Your task to perform on an android device: add a contact in the contacts app Image 0: 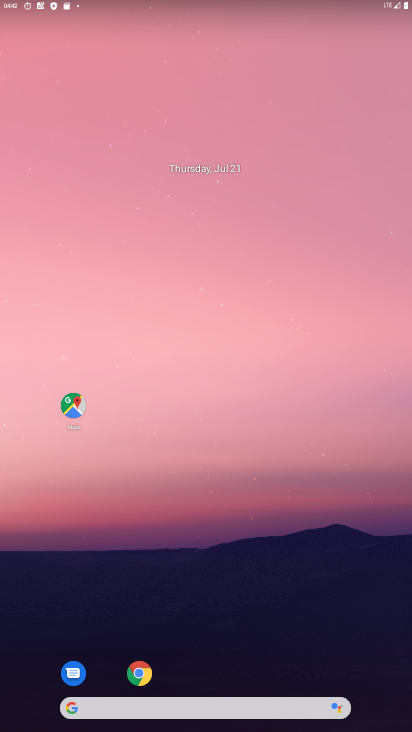
Step 0: drag from (299, 683) to (258, 180)
Your task to perform on an android device: add a contact in the contacts app Image 1: 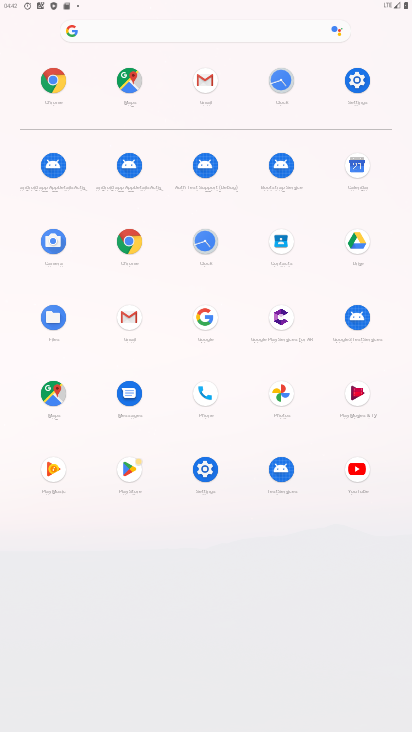
Step 1: click (287, 234)
Your task to perform on an android device: add a contact in the contacts app Image 2: 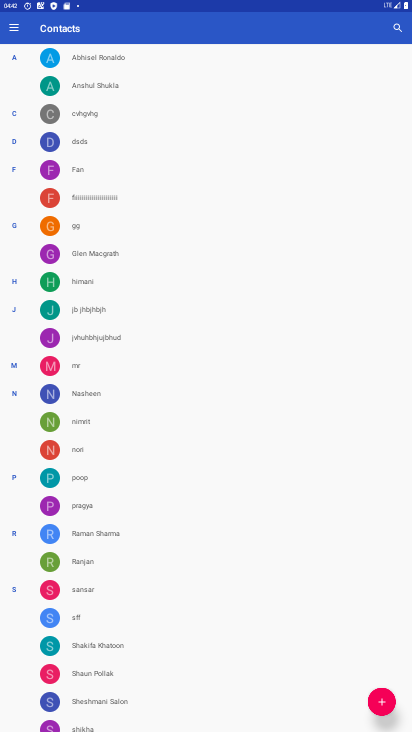
Step 2: click (379, 702)
Your task to perform on an android device: add a contact in the contacts app Image 3: 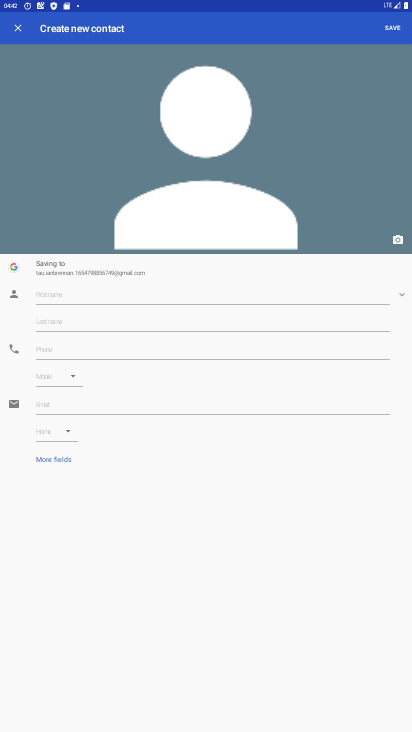
Step 3: click (180, 299)
Your task to perform on an android device: add a contact in the contacts app Image 4: 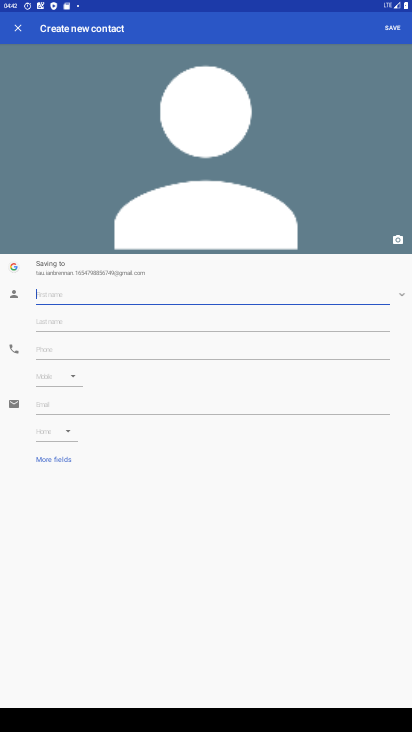
Step 4: type "gopd"
Your task to perform on an android device: add a contact in the contacts app Image 5: 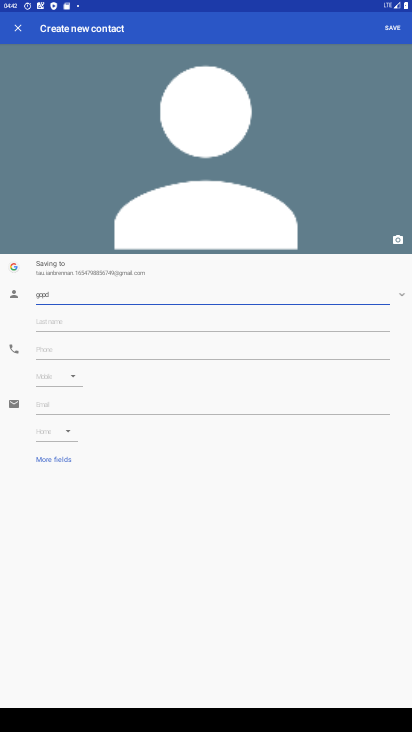
Step 5: click (382, 29)
Your task to perform on an android device: add a contact in the contacts app Image 6: 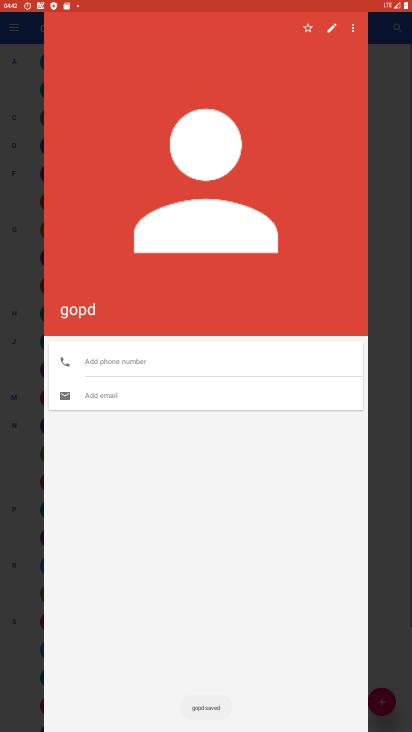
Step 6: task complete